Your task to perform on an android device: delete a single message in the gmail app Image 0: 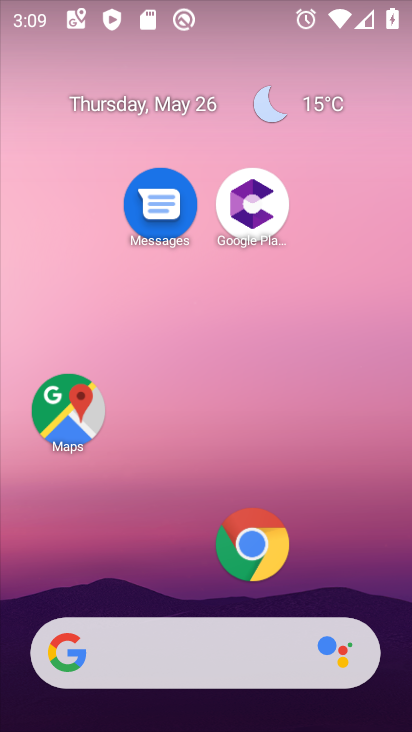
Step 0: drag from (172, 350) to (165, 3)
Your task to perform on an android device: delete a single message in the gmail app Image 1: 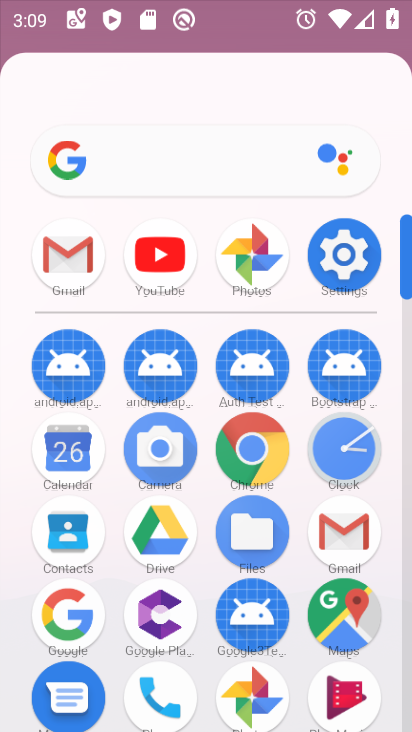
Step 1: drag from (151, 541) to (143, 89)
Your task to perform on an android device: delete a single message in the gmail app Image 2: 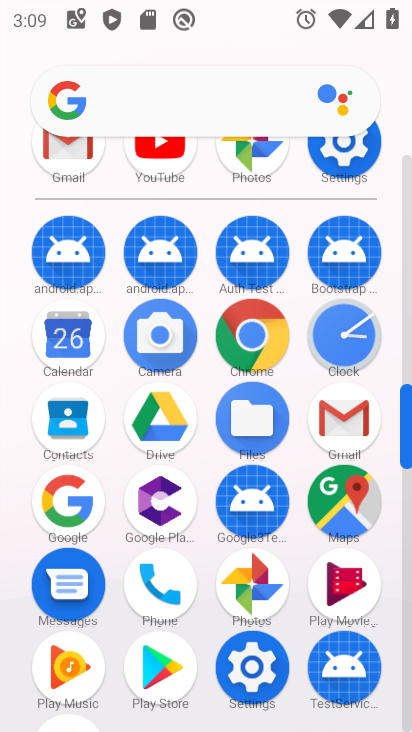
Step 2: click (81, 183)
Your task to perform on an android device: delete a single message in the gmail app Image 3: 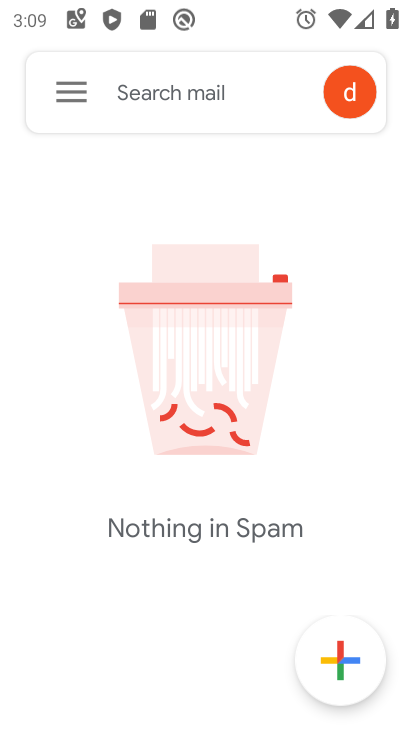
Step 3: click (56, 97)
Your task to perform on an android device: delete a single message in the gmail app Image 4: 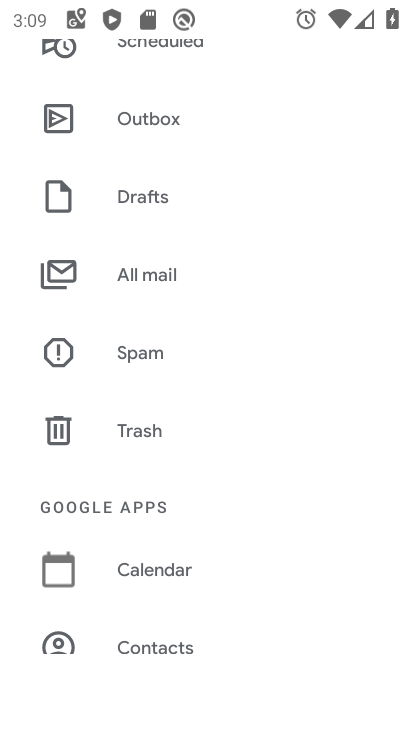
Step 4: click (108, 284)
Your task to perform on an android device: delete a single message in the gmail app Image 5: 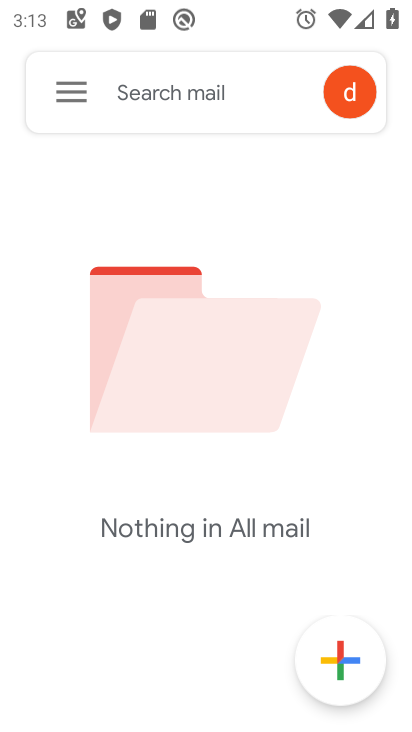
Step 5: task complete